Your task to perform on an android device: Toggle the flashlight Image 0: 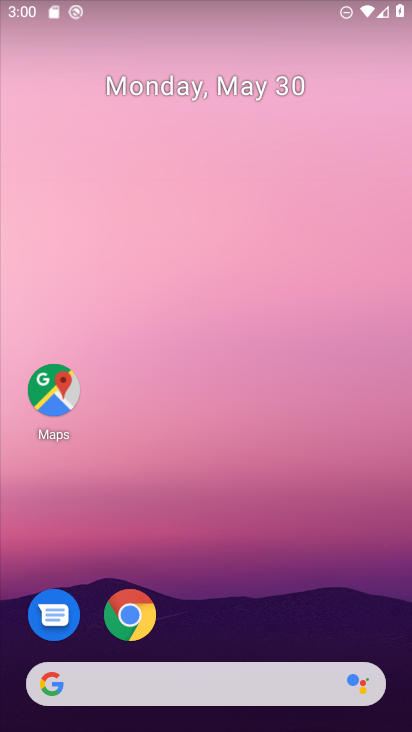
Step 0: click (211, 165)
Your task to perform on an android device: Toggle the flashlight Image 1: 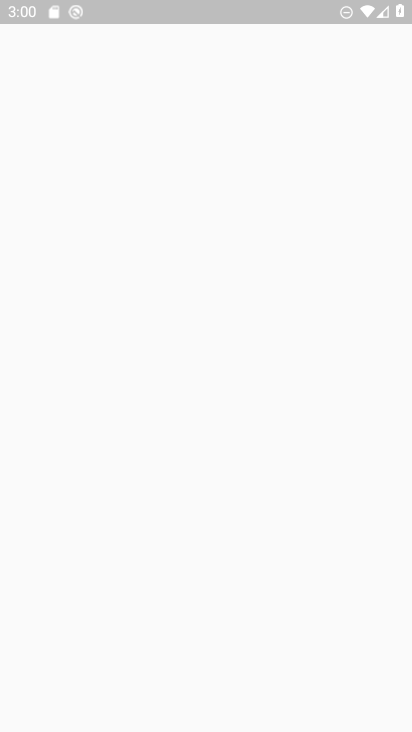
Step 1: drag from (324, 10) to (201, 327)
Your task to perform on an android device: Toggle the flashlight Image 2: 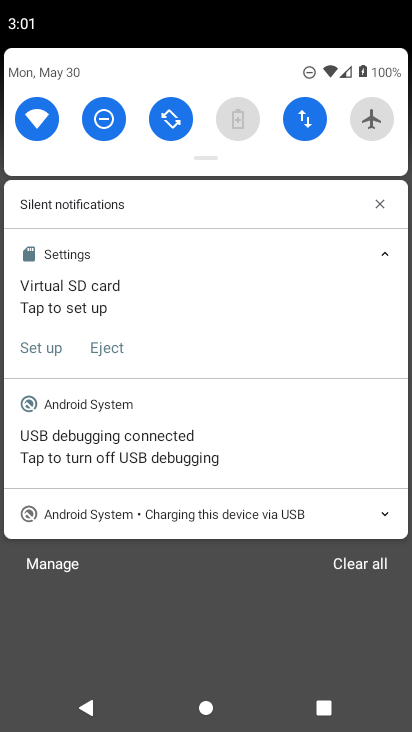
Step 2: drag from (235, 147) to (130, 584)
Your task to perform on an android device: Toggle the flashlight Image 3: 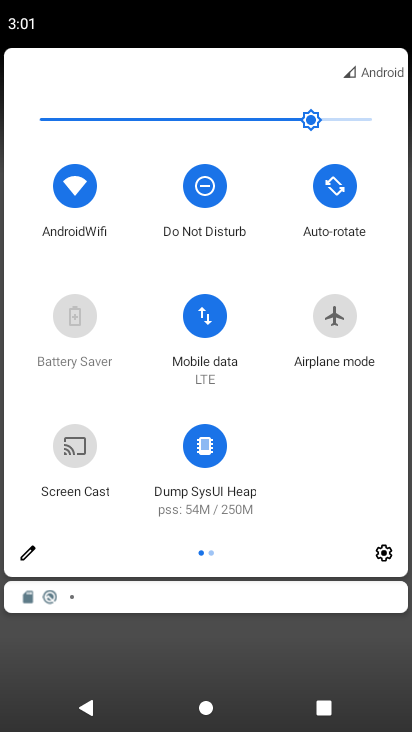
Step 3: click (30, 548)
Your task to perform on an android device: Toggle the flashlight Image 4: 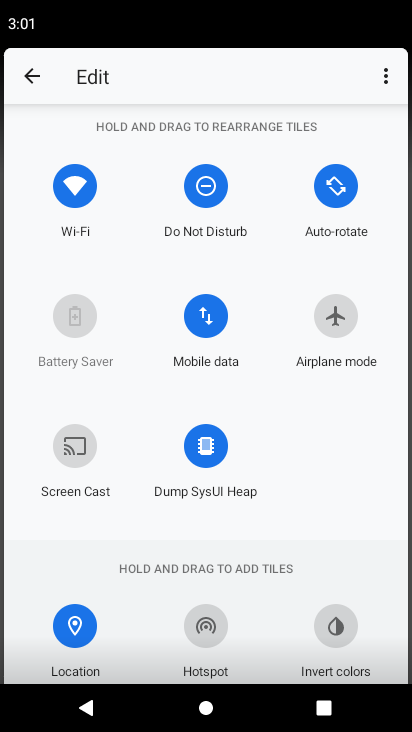
Step 4: task complete